Your task to perform on an android device: change notifications settings Image 0: 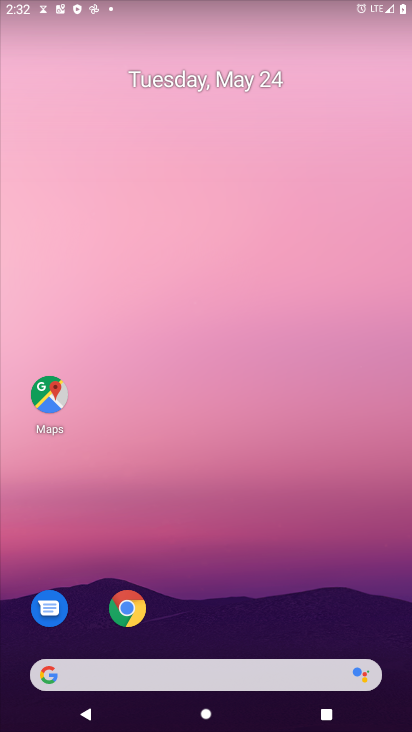
Step 0: drag from (266, 687) to (296, 219)
Your task to perform on an android device: change notifications settings Image 1: 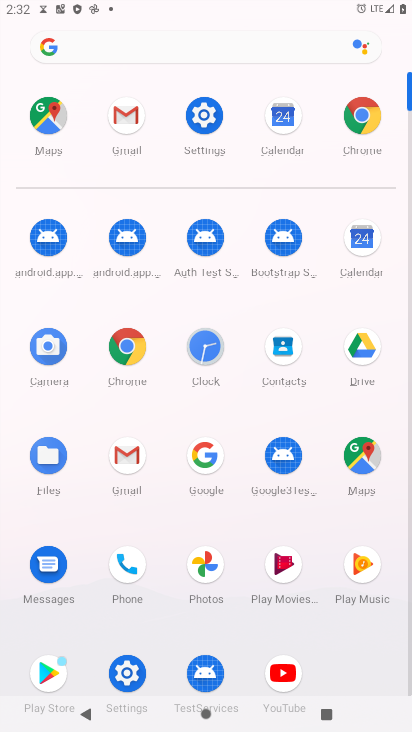
Step 1: click (216, 119)
Your task to perform on an android device: change notifications settings Image 2: 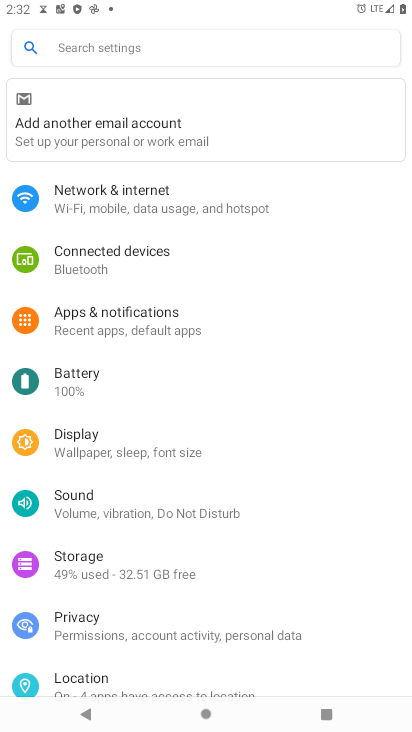
Step 2: click (136, 51)
Your task to perform on an android device: change notifications settings Image 3: 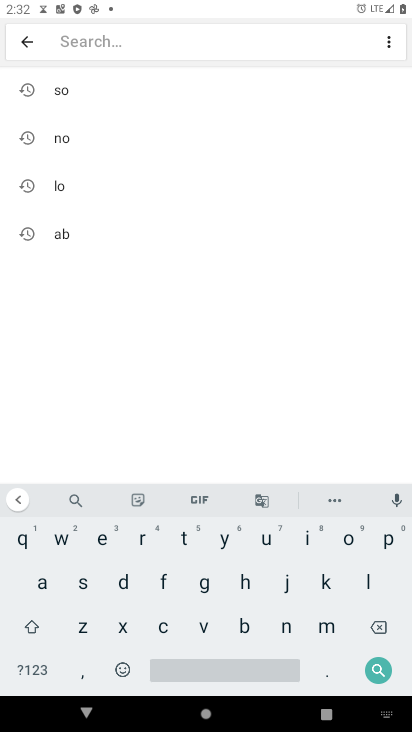
Step 3: click (286, 625)
Your task to perform on an android device: change notifications settings Image 4: 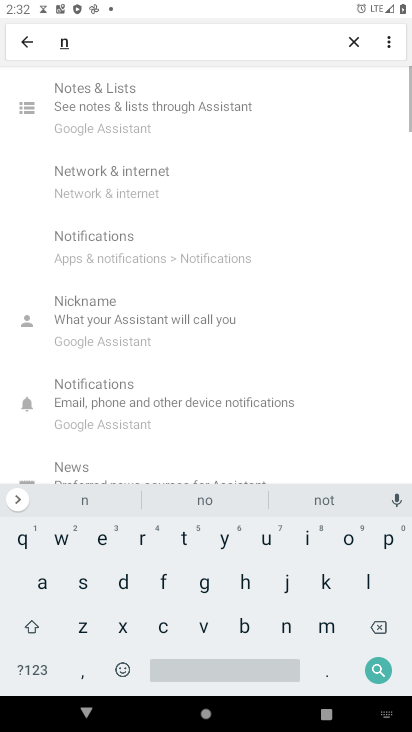
Step 4: click (347, 540)
Your task to perform on an android device: change notifications settings Image 5: 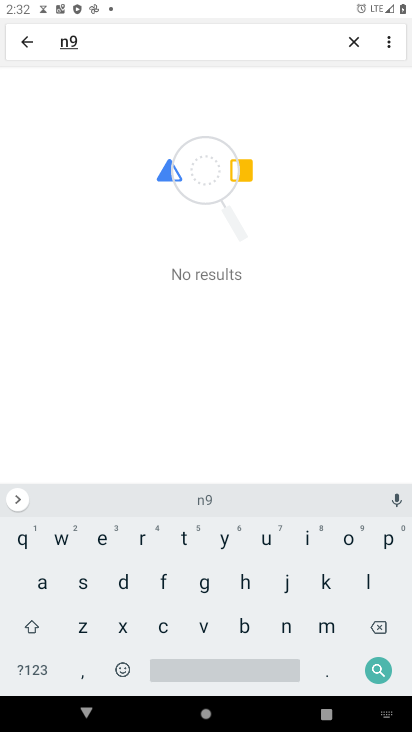
Step 5: click (381, 621)
Your task to perform on an android device: change notifications settings Image 6: 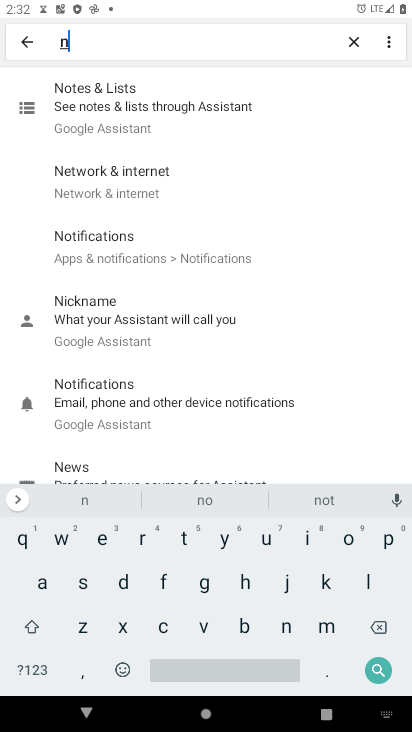
Step 6: click (349, 544)
Your task to perform on an android device: change notifications settings Image 7: 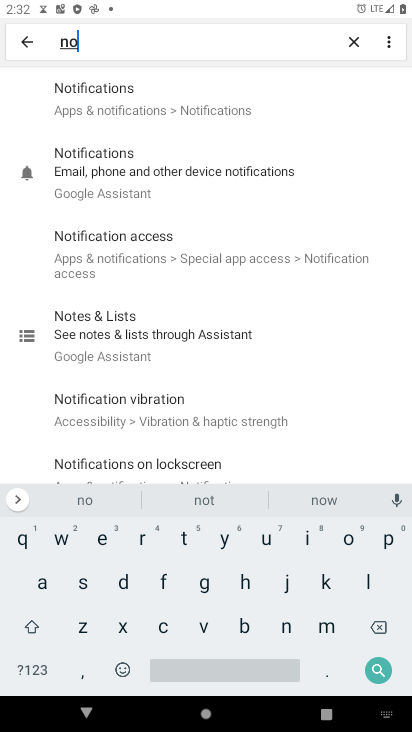
Step 7: click (183, 99)
Your task to perform on an android device: change notifications settings Image 8: 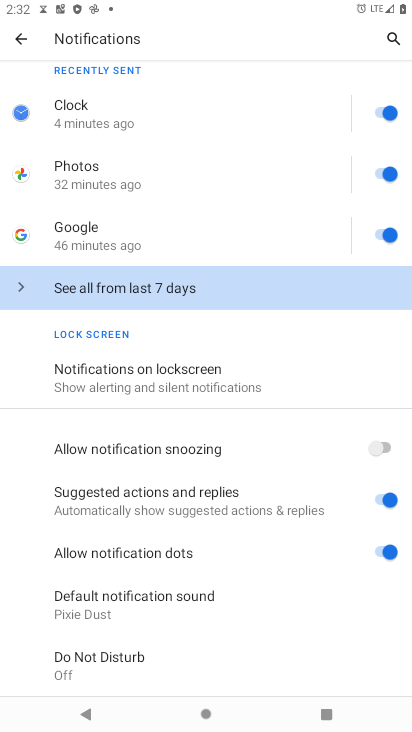
Step 8: click (116, 385)
Your task to perform on an android device: change notifications settings Image 9: 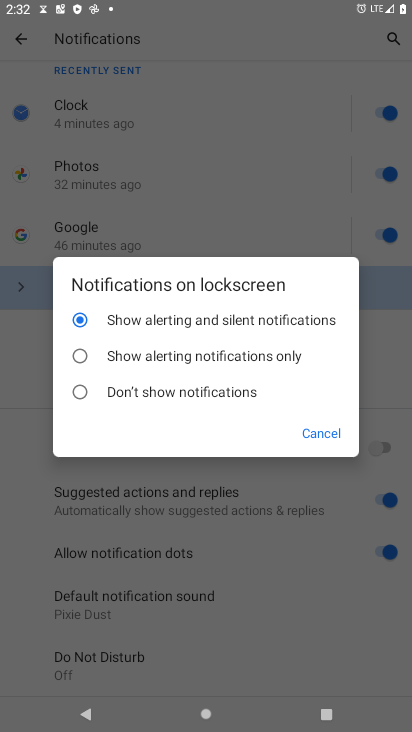
Step 9: task complete